Your task to perform on an android device: Go to eBay Image 0: 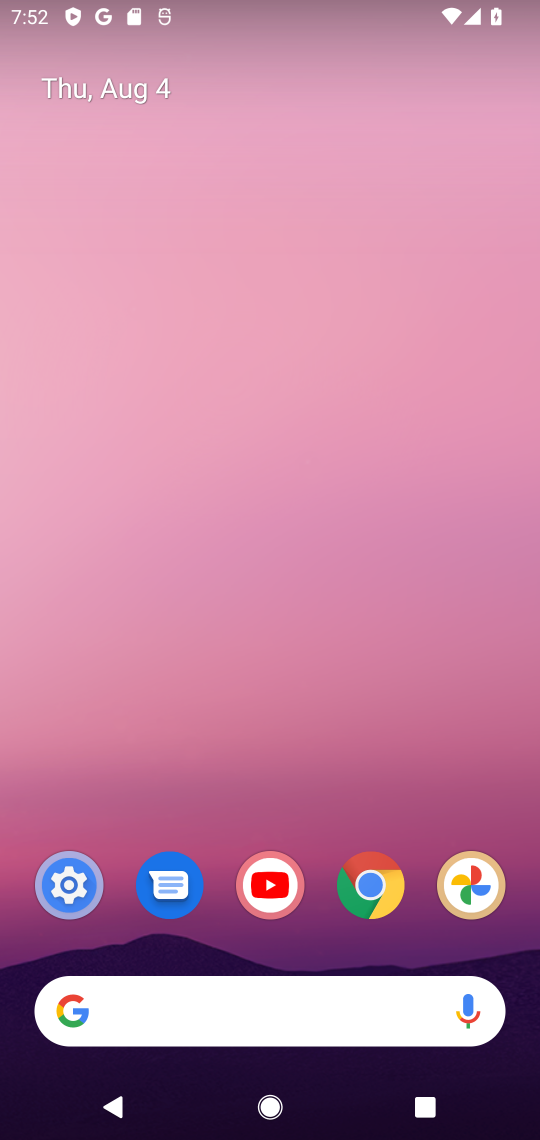
Step 0: click (370, 870)
Your task to perform on an android device: Go to eBay Image 1: 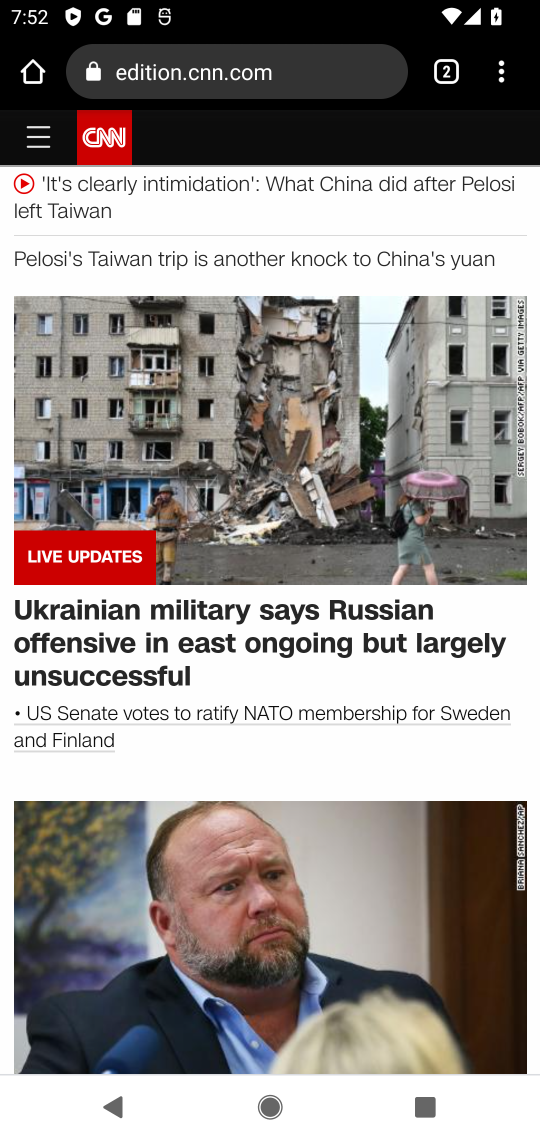
Step 1: click (449, 75)
Your task to perform on an android device: Go to eBay Image 2: 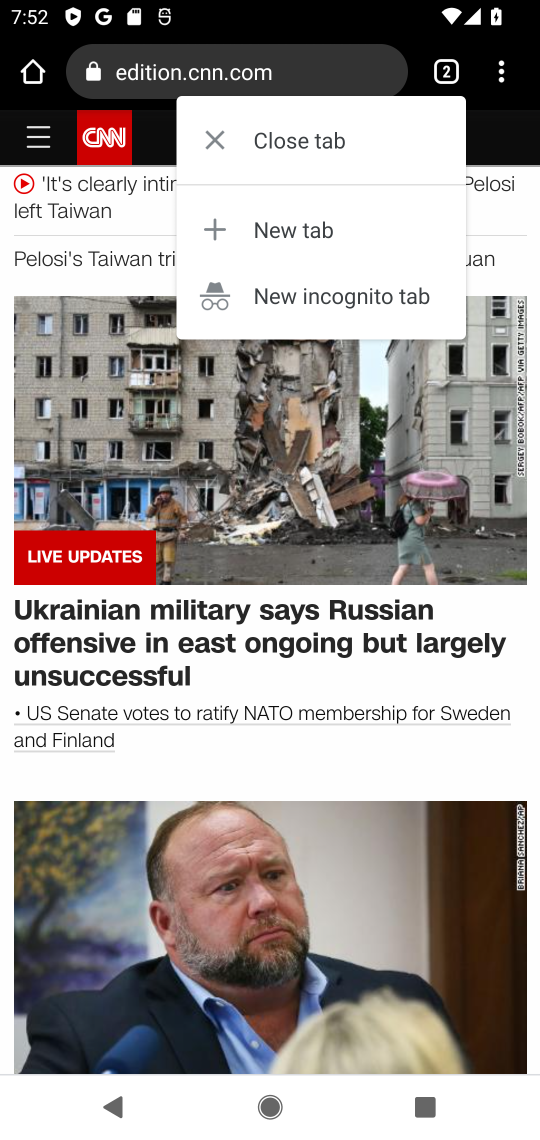
Step 2: click (447, 67)
Your task to perform on an android device: Go to eBay Image 3: 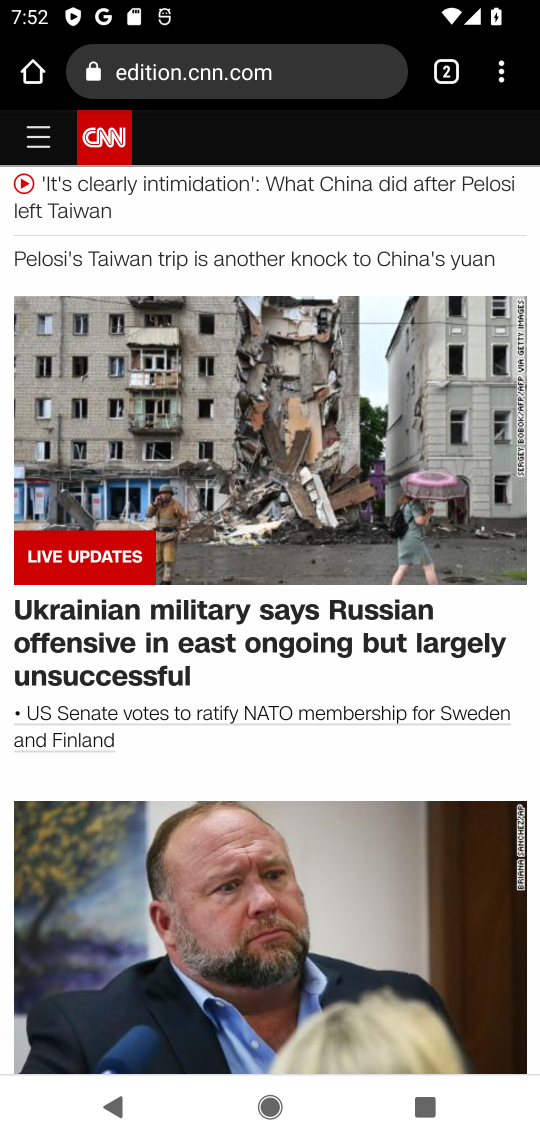
Step 3: click (447, 67)
Your task to perform on an android device: Go to eBay Image 4: 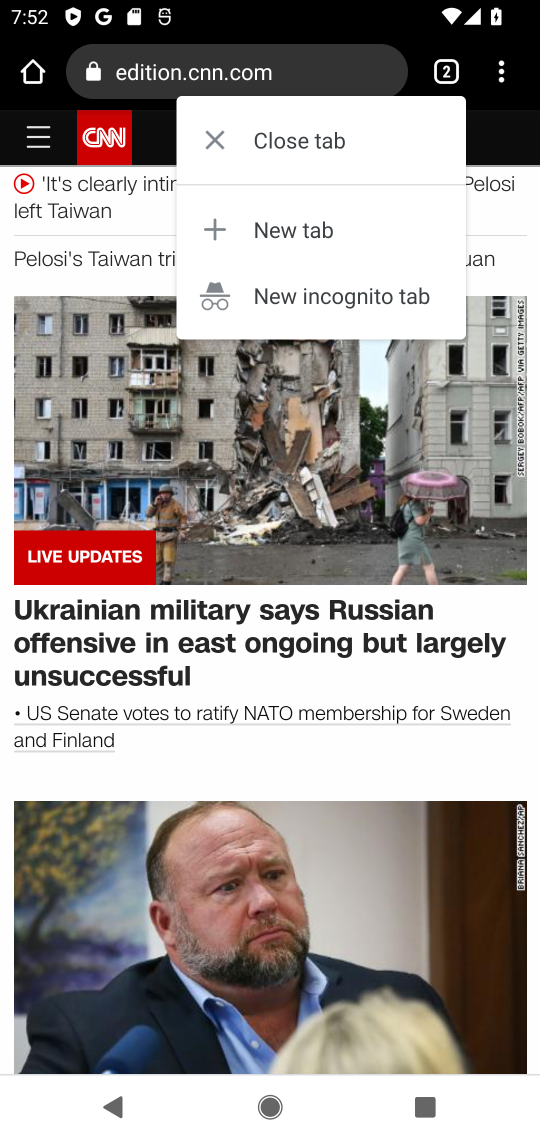
Step 4: click (289, 218)
Your task to perform on an android device: Go to eBay Image 5: 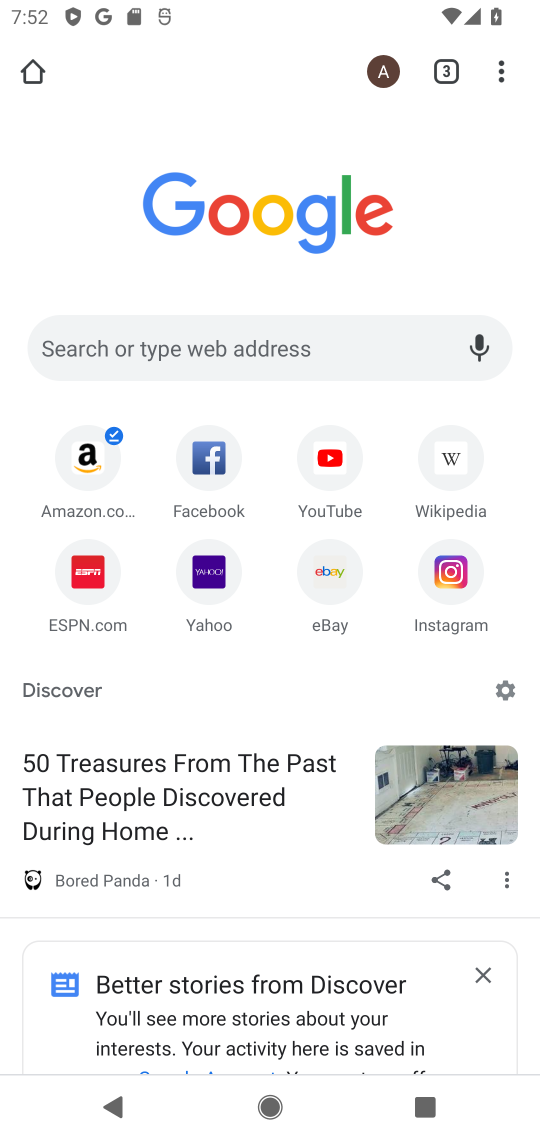
Step 5: click (326, 567)
Your task to perform on an android device: Go to eBay Image 6: 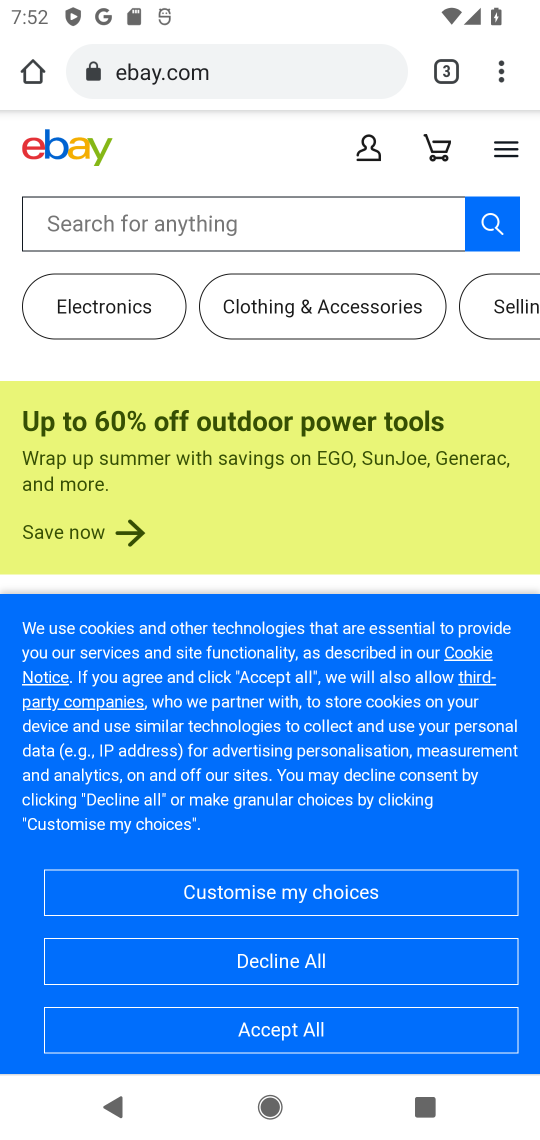
Step 6: click (293, 1029)
Your task to perform on an android device: Go to eBay Image 7: 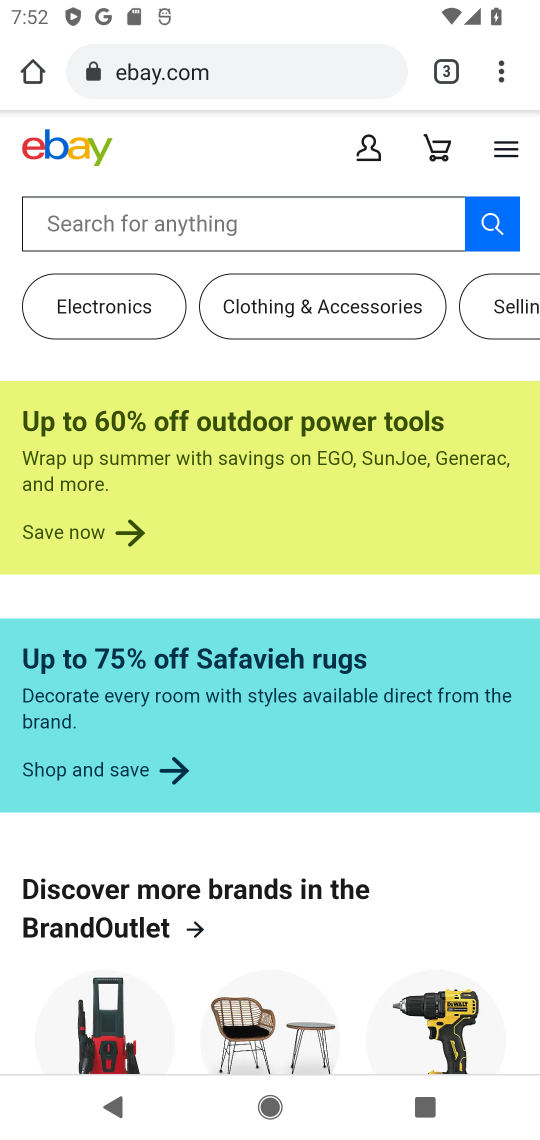
Step 7: task complete